Your task to perform on an android device: Open internet settings Image 0: 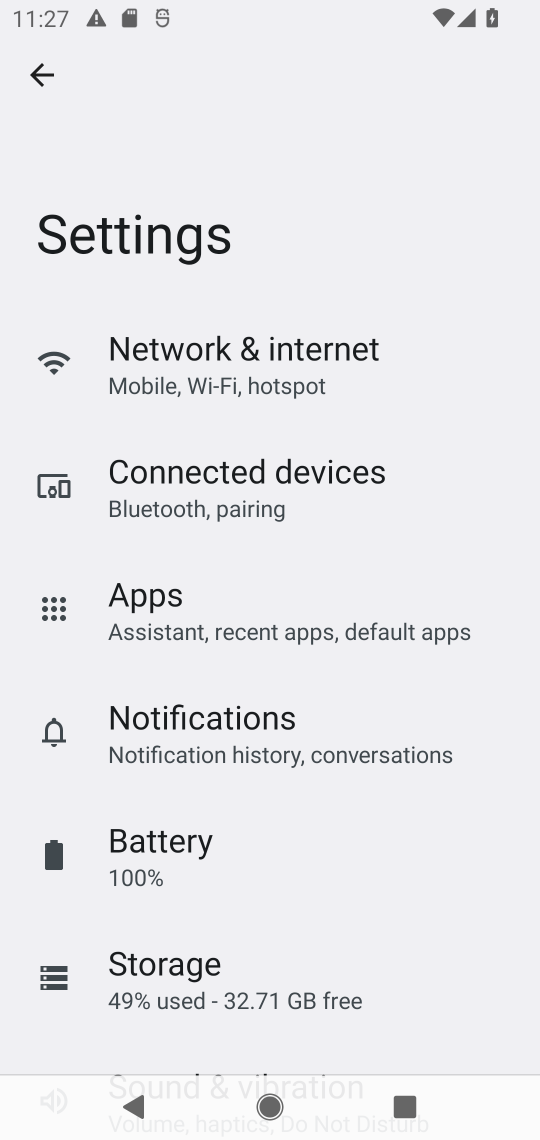
Step 0: click (191, 360)
Your task to perform on an android device: Open internet settings Image 1: 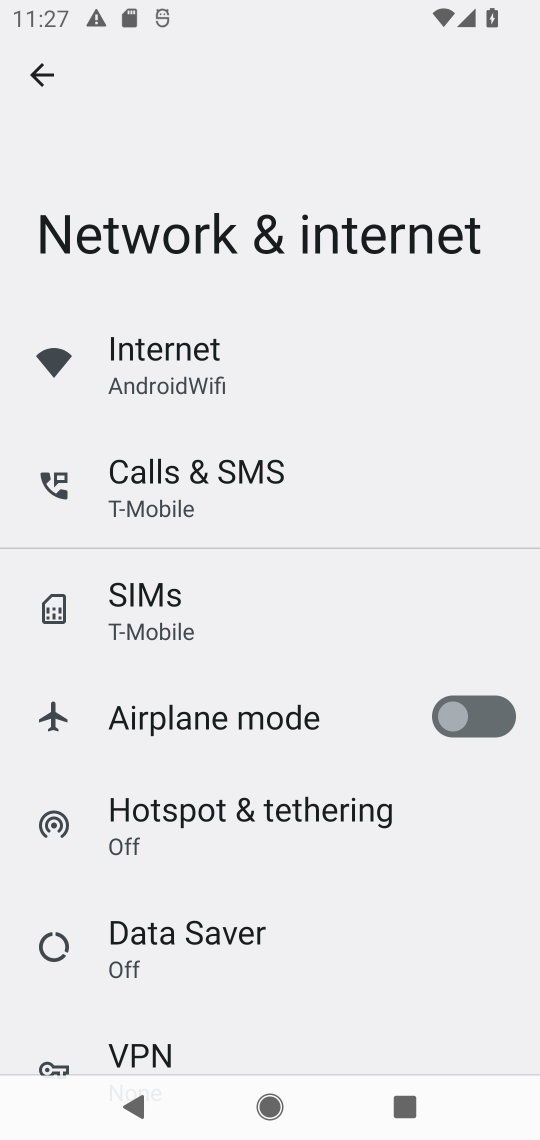
Step 1: click (164, 373)
Your task to perform on an android device: Open internet settings Image 2: 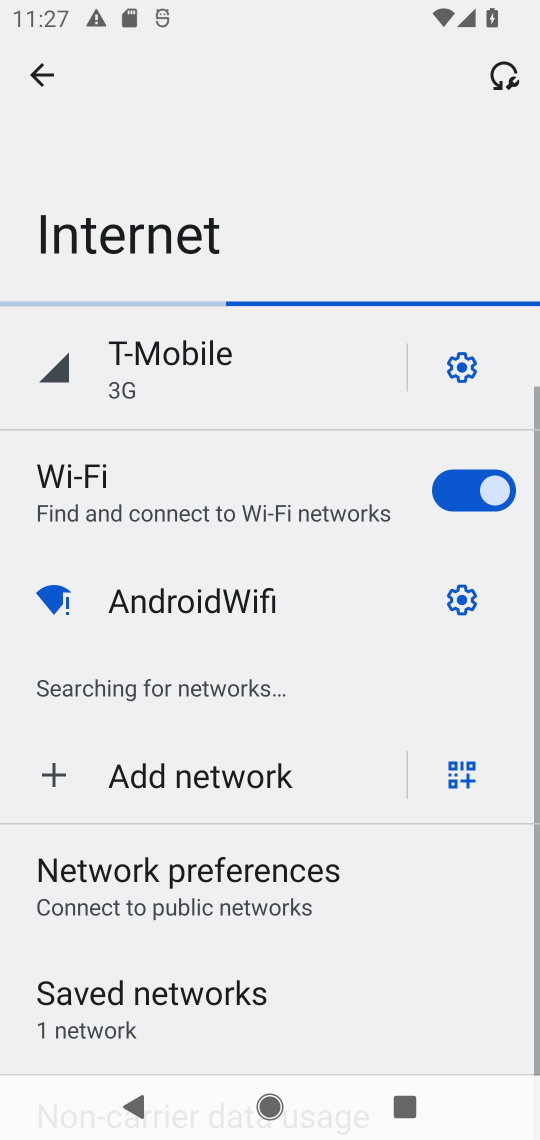
Step 2: task complete